Your task to perform on an android device: Search for sushi restaurants on Maps Image 0: 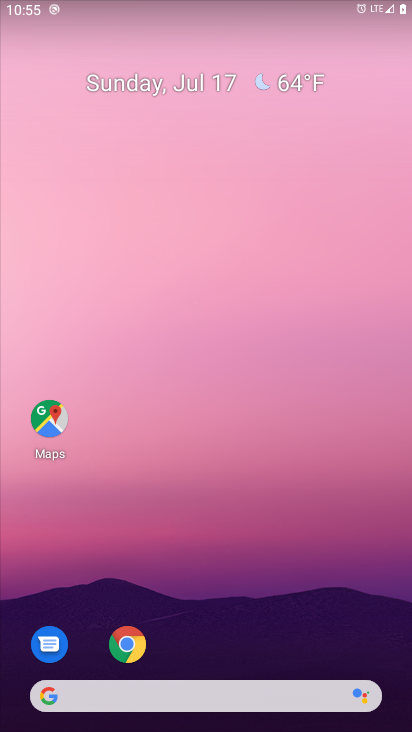
Step 0: click (44, 421)
Your task to perform on an android device: Search for sushi restaurants on Maps Image 1: 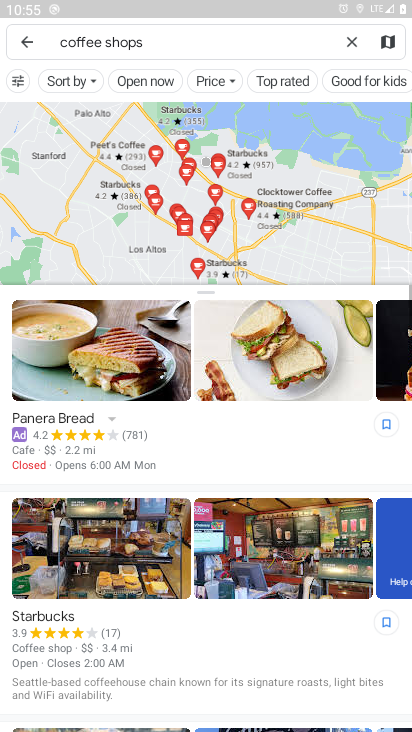
Step 1: click (345, 35)
Your task to perform on an android device: Search for sushi restaurants on Maps Image 2: 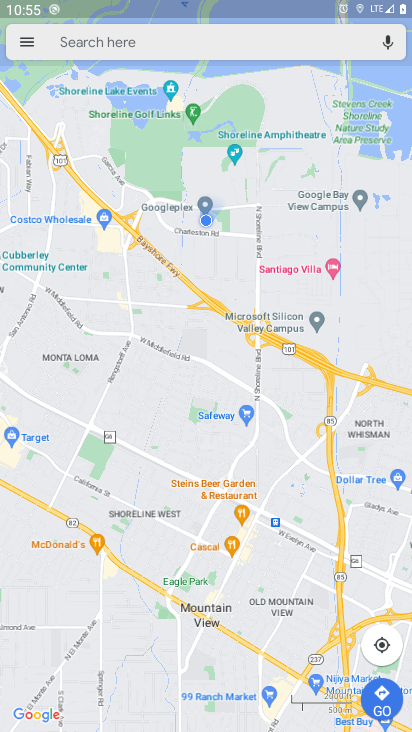
Step 2: type "sushi restaurants"
Your task to perform on an android device: Search for sushi restaurants on Maps Image 3: 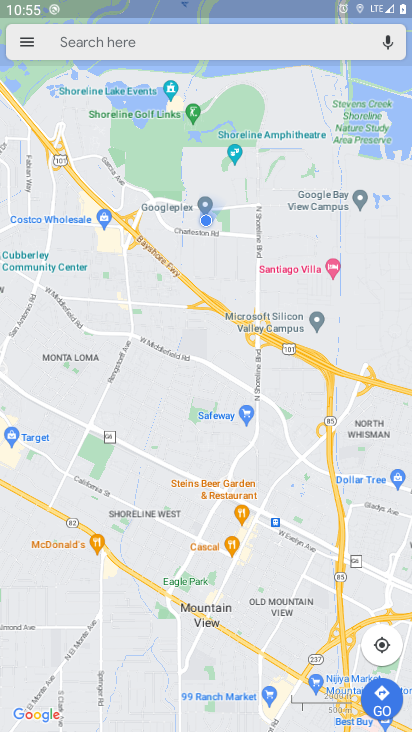
Step 3: click (145, 41)
Your task to perform on an android device: Search for sushi restaurants on Maps Image 4: 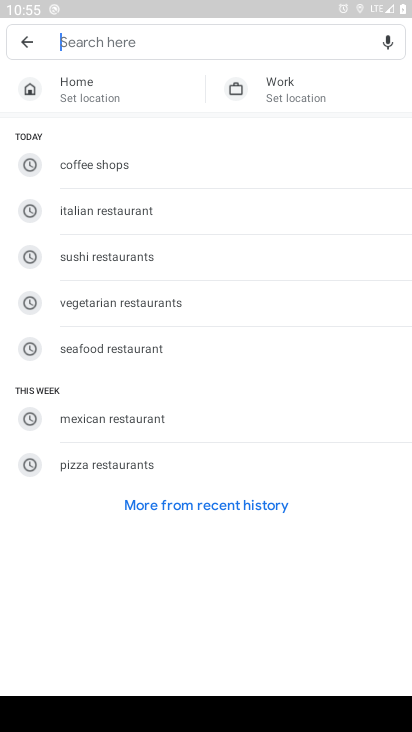
Step 4: click (77, 251)
Your task to perform on an android device: Search for sushi restaurants on Maps Image 5: 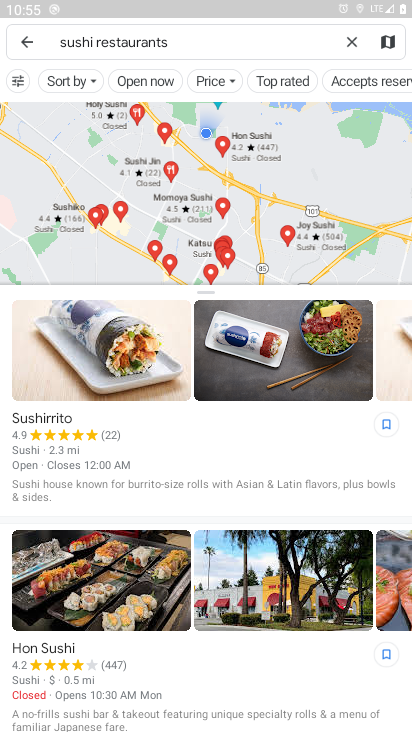
Step 5: task complete